Your task to perform on an android device: Search for vegetarian restaurants on Maps Image 0: 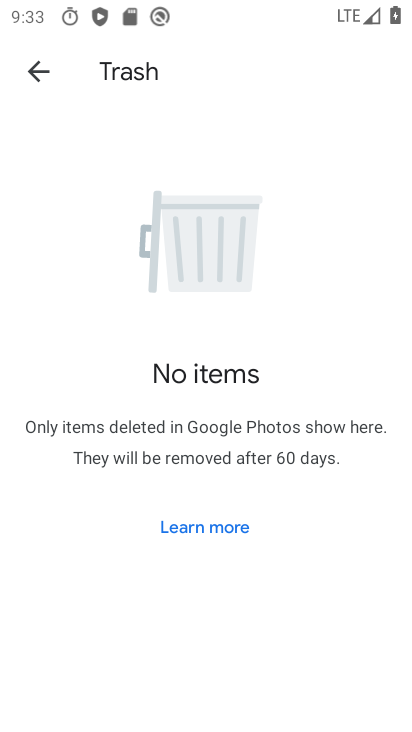
Step 0: press home button
Your task to perform on an android device: Search for vegetarian restaurants on Maps Image 1: 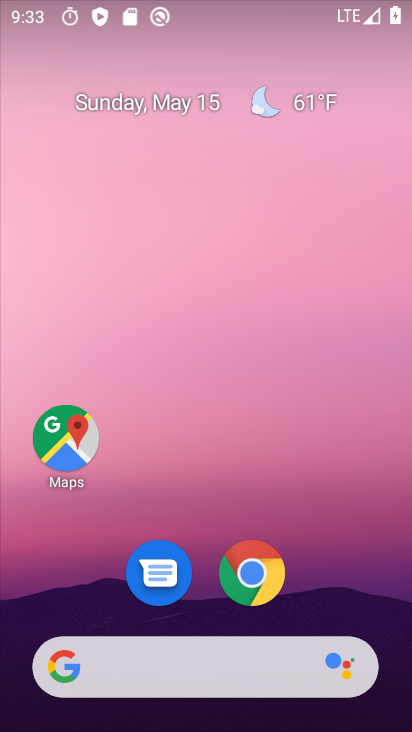
Step 1: click (53, 458)
Your task to perform on an android device: Search for vegetarian restaurants on Maps Image 2: 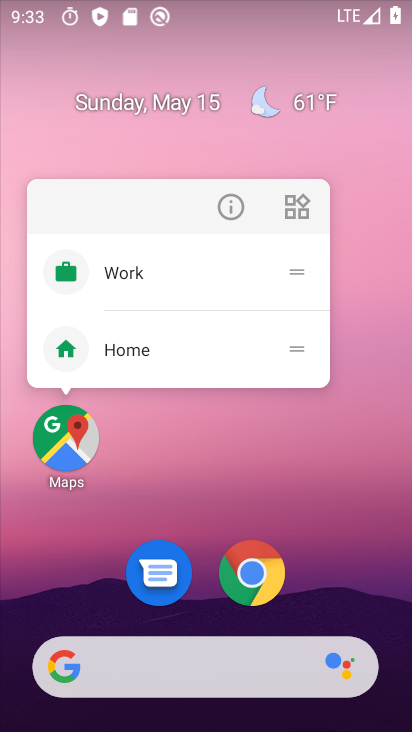
Step 2: click (67, 447)
Your task to perform on an android device: Search for vegetarian restaurants on Maps Image 3: 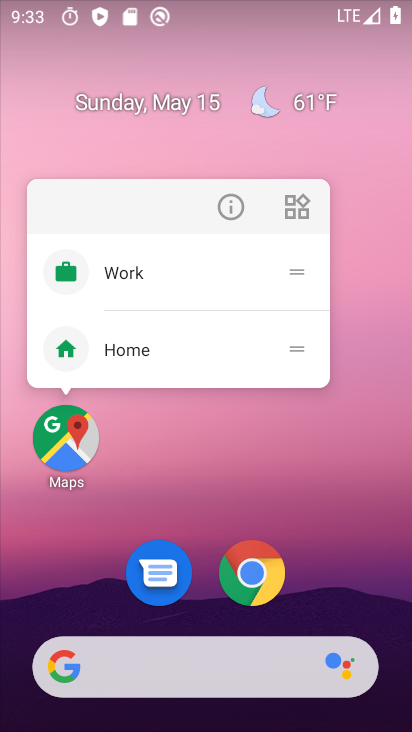
Step 3: click (69, 432)
Your task to perform on an android device: Search for vegetarian restaurants on Maps Image 4: 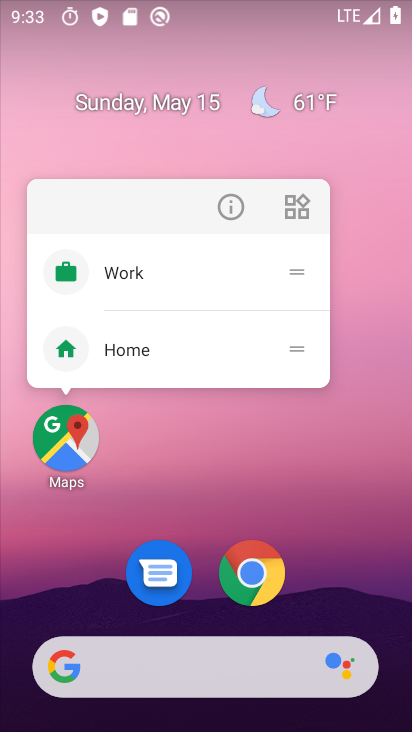
Step 4: click (71, 406)
Your task to perform on an android device: Search for vegetarian restaurants on Maps Image 5: 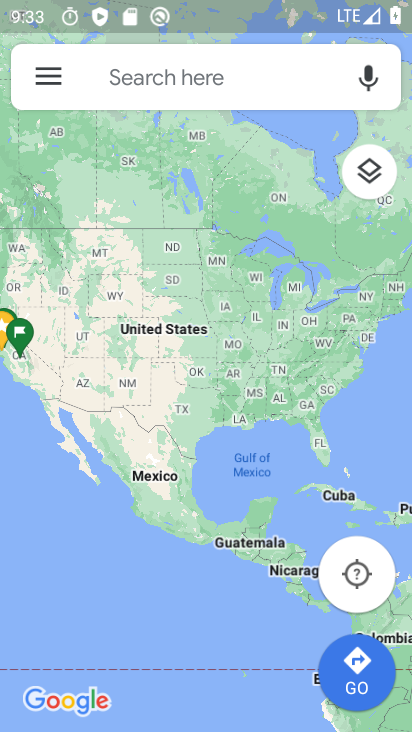
Step 5: click (142, 100)
Your task to perform on an android device: Search for vegetarian restaurants on Maps Image 6: 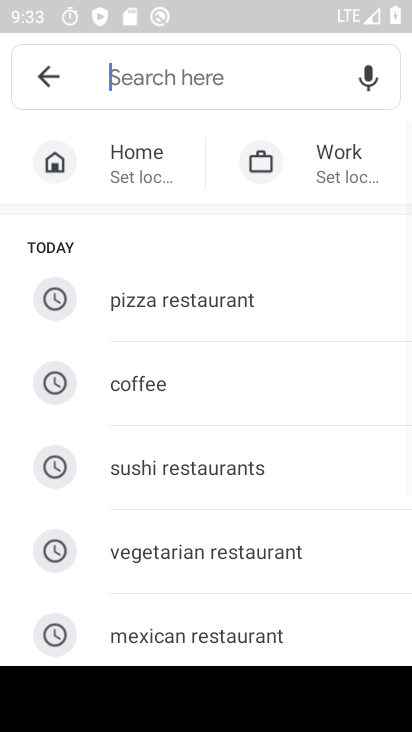
Step 6: click (190, 548)
Your task to perform on an android device: Search for vegetarian restaurants on Maps Image 7: 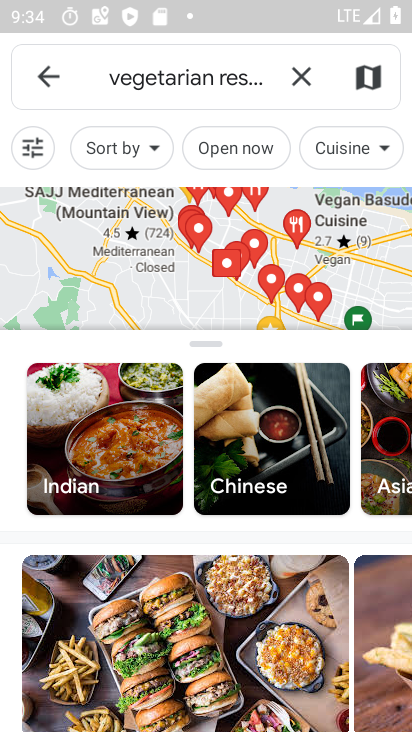
Step 7: task complete